Your task to perform on an android device: What's on my calendar tomorrow? Image 0: 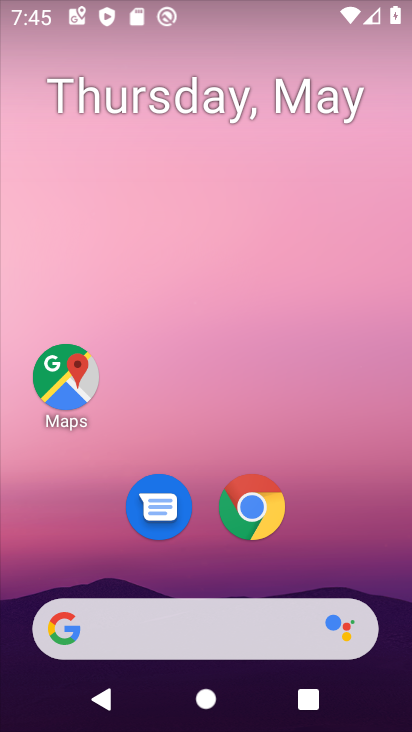
Step 0: press home button
Your task to perform on an android device: What's on my calendar tomorrow? Image 1: 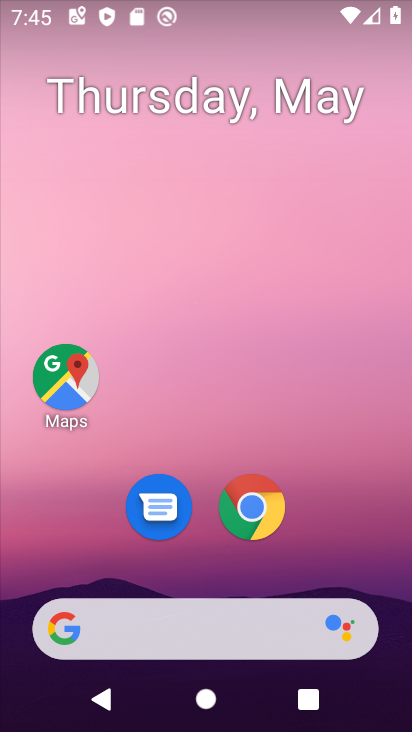
Step 1: drag from (262, 599) to (288, 240)
Your task to perform on an android device: What's on my calendar tomorrow? Image 2: 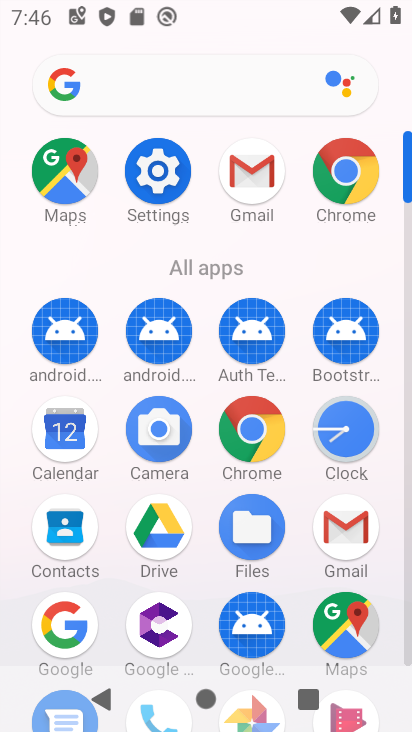
Step 2: click (161, 81)
Your task to perform on an android device: What's on my calendar tomorrow? Image 3: 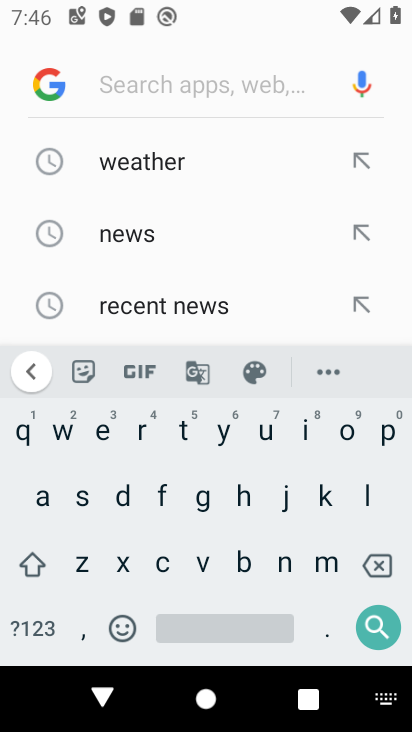
Step 3: drag from (172, 172) to (411, 351)
Your task to perform on an android device: What's on my calendar tomorrow? Image 4: 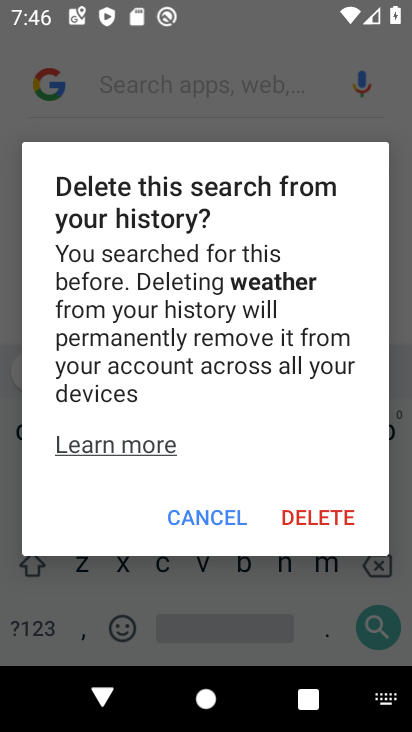
Step 4: press home button
Your task to perform on an android device: What's on my calendar tomorrow? Image 5: 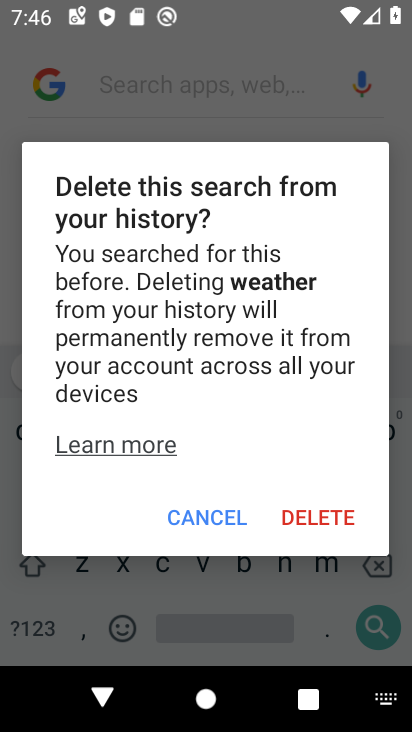
Step 5: click (405, 169)
Your task to perform on an android device: What's on my calendar tomorrow? Image 6: 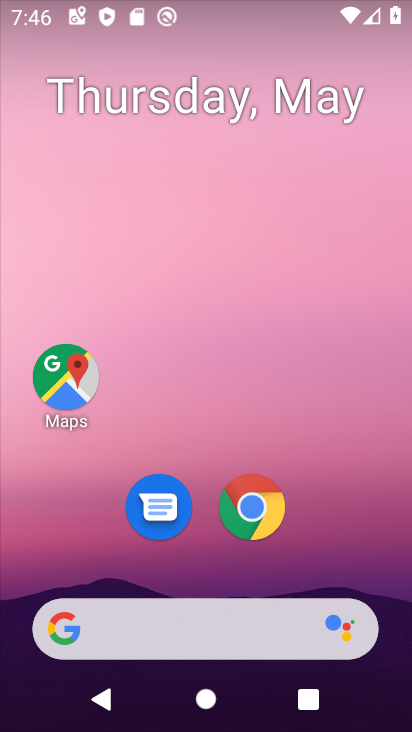
Step 6: drag from (232, 654) to (170, 120)
Your task to perform on an android device: What's on my calendar tomorrow? Image 7: 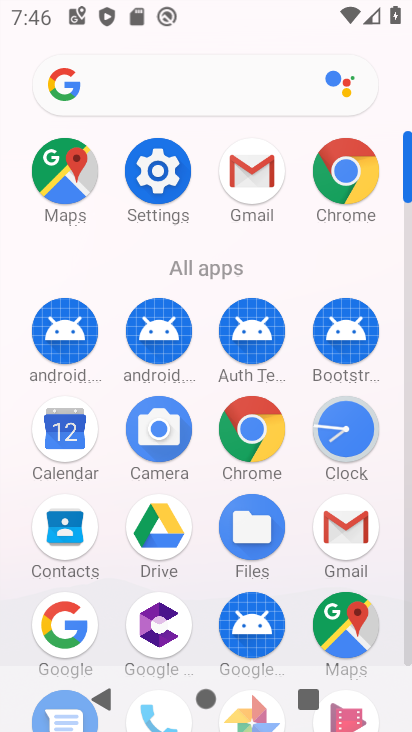
Step 7: click (92, 435)
Your task to perform on an android device: What's on my calendar tomorrow? Image 8: 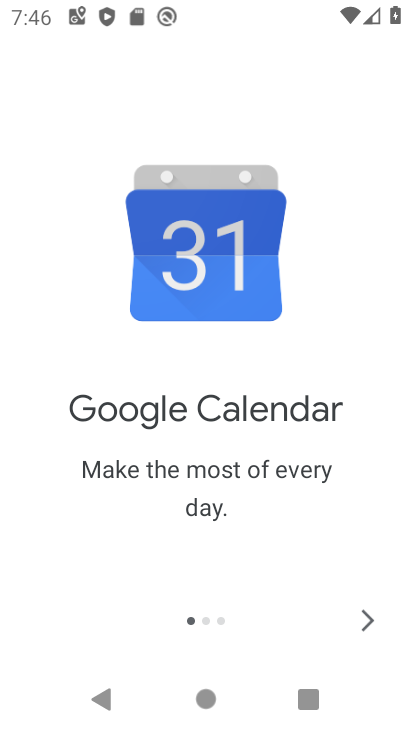
Step 8: click (370, 626)
Your task to perform on an android device: What's on my calendar tomorrow? Image 9: 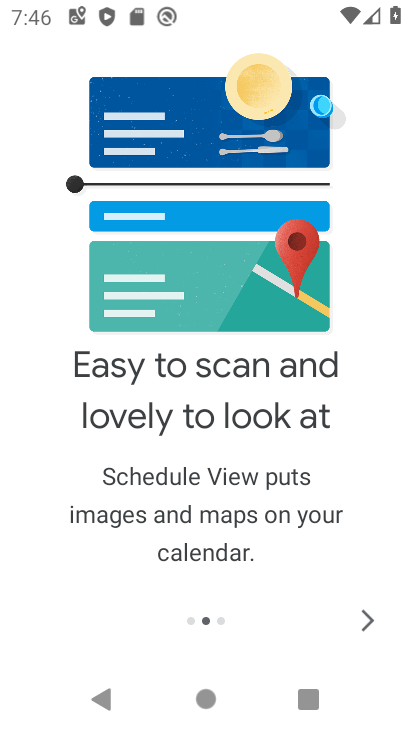
Step 9: click (357, 632)
Your task to perform on an android device: What's on my calendar tomorrow? Image 10: 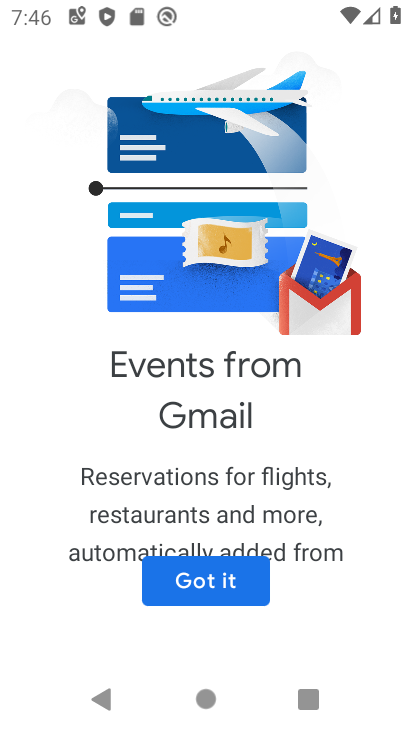
Step 10: click (203, 569)
Your task to perform on an android device: What's on my calendar tomorrow? Image 11: 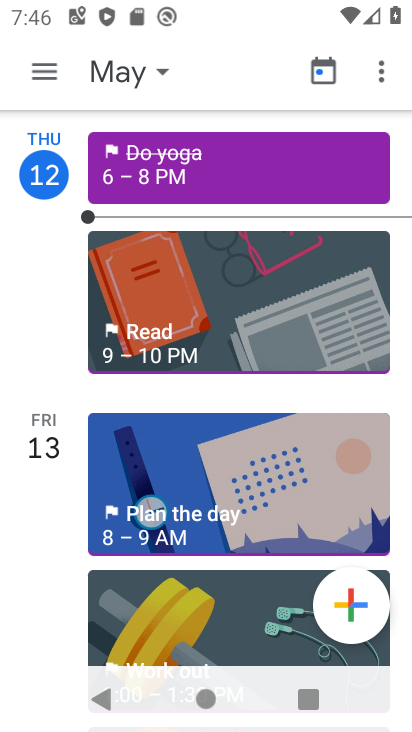
Step 11: click (48, 450)
Your task to perform on an android device: What's on my calendar tomorrow? Image 12: 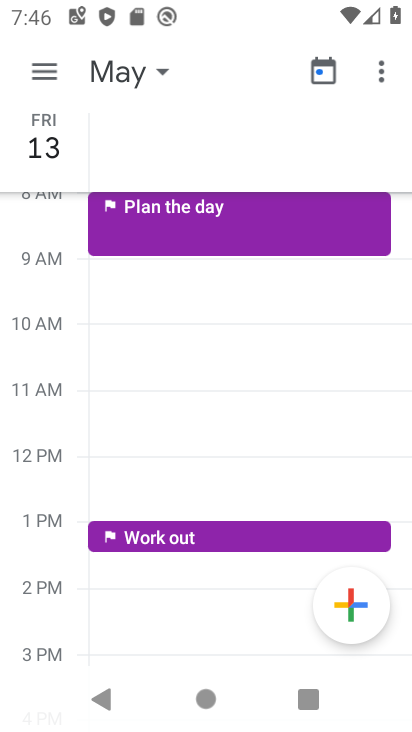
Step 12: task complete